Your task to perform on an android device: Open ESPN.com Image 0: 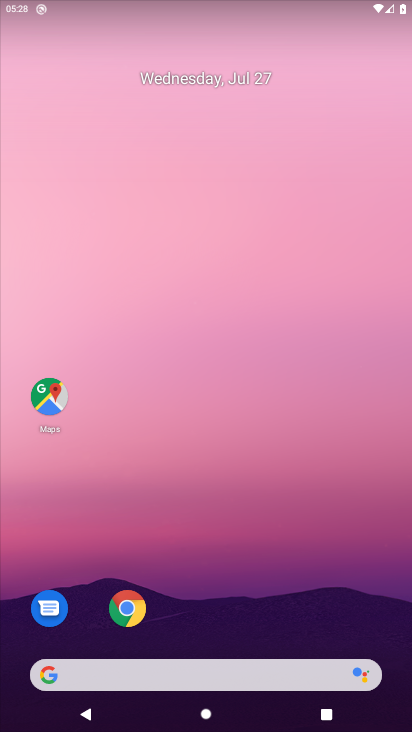
Step 0: click (44, 673)
Your task to perform on an android device: Open ESPN.com Image 1: 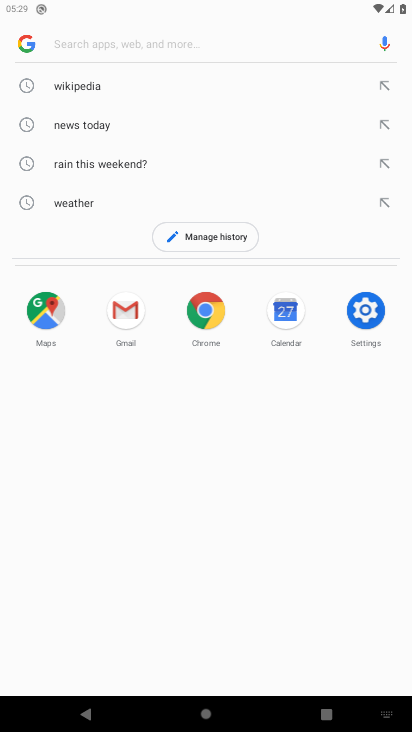
Step 1: press enter
Your task to perform on an android device: Open ESPN.com Image 2: 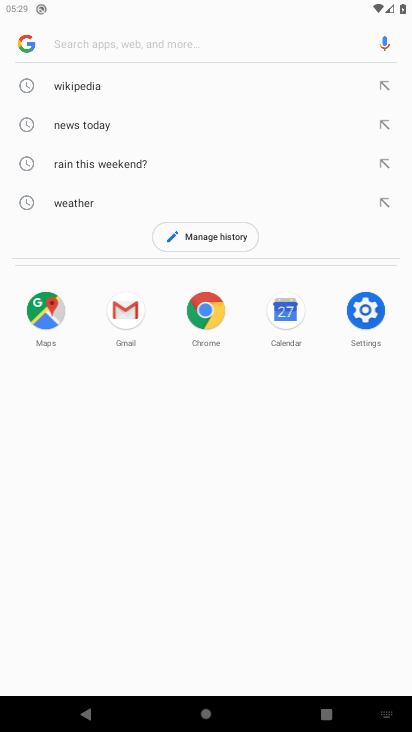
Step 2: type "ESPN.com"
Your task to perform on an android device: Open ESPN.com Image 3: 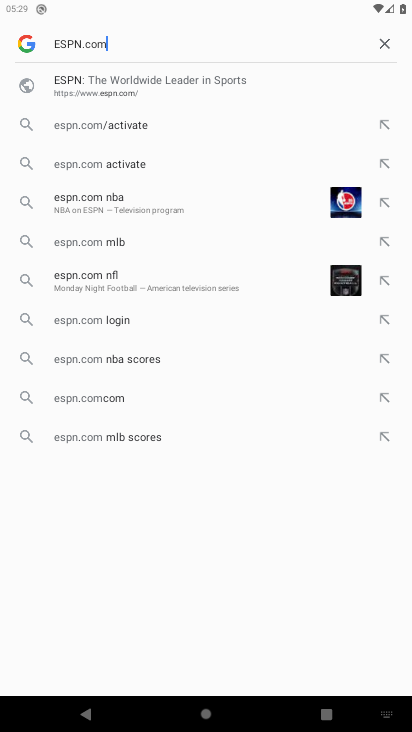
Step 3: press enter
Your task to perform on an android device: Open ESPN.com Image 4: 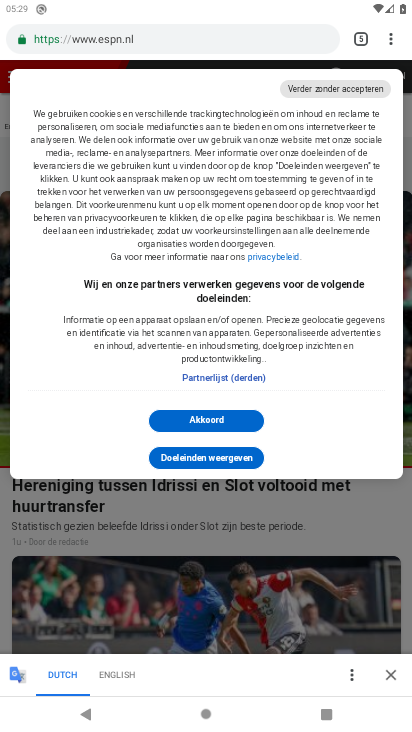
Step 4: click (188, 421)
Your task to perform on an android device: Open ESPN.com Image 5: 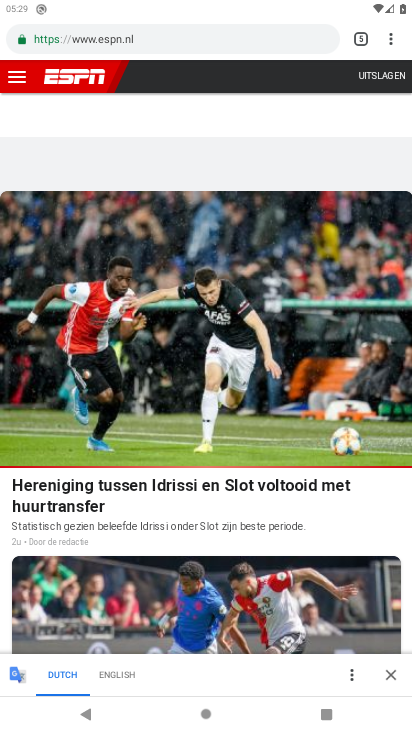
Step 5: task complete